Your task to perform on an android device: Show me the alarms in the clock app Image 0: 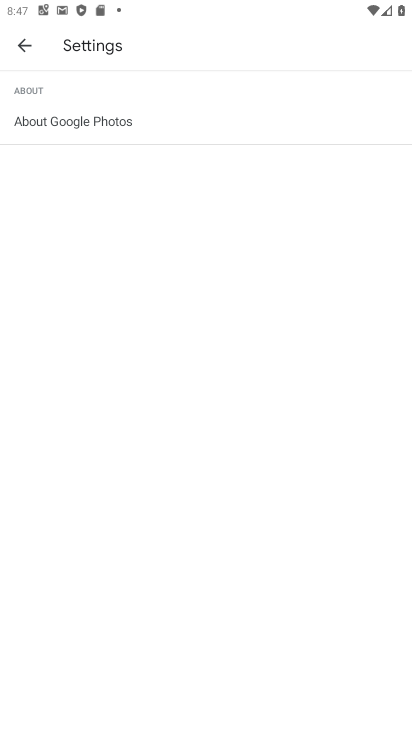
Step 0: press home button
Your task to perform on an android device: Show me the alarms in the clock app Image 1: 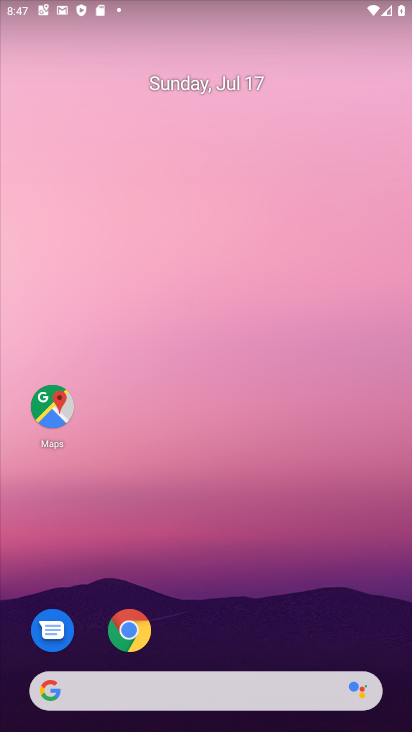
Step 1: drag from (355, 640) to (411, 186)
Your task to perform on an android device: Show me the alarms in the clock app Image 2: 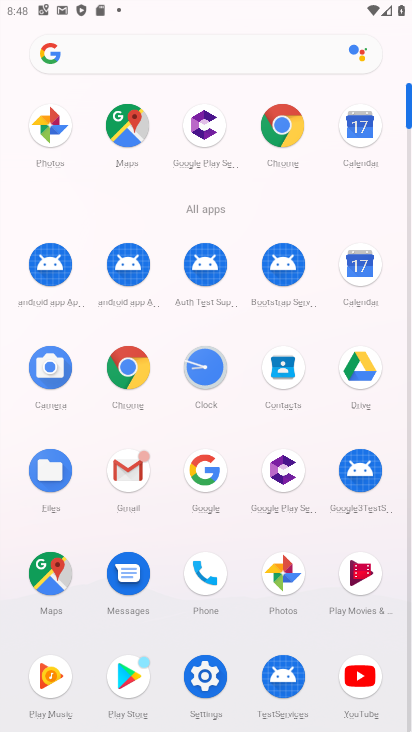
Step 2: click (207, 365)
Your task to perform on an android device: Show me the alarms in the clock app Image 3: 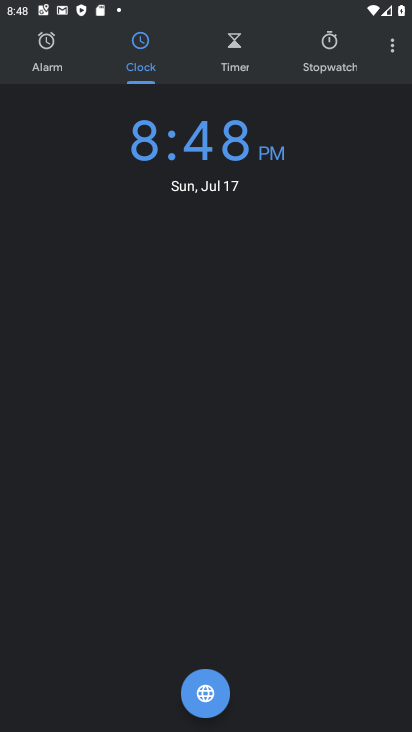
Step 3: click (53, 59)
Your task to perform on an android device: Show me the alarms in the clock app Image 4: 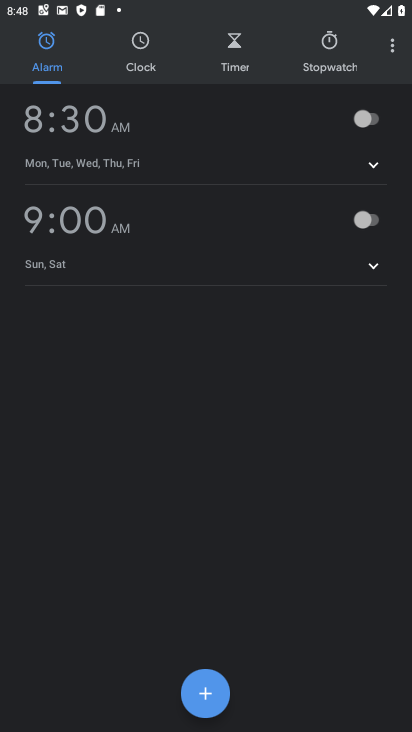
Step 4: task complete